Your task to perform on an android device: Set the phone to "Do not disturb". Image 0: 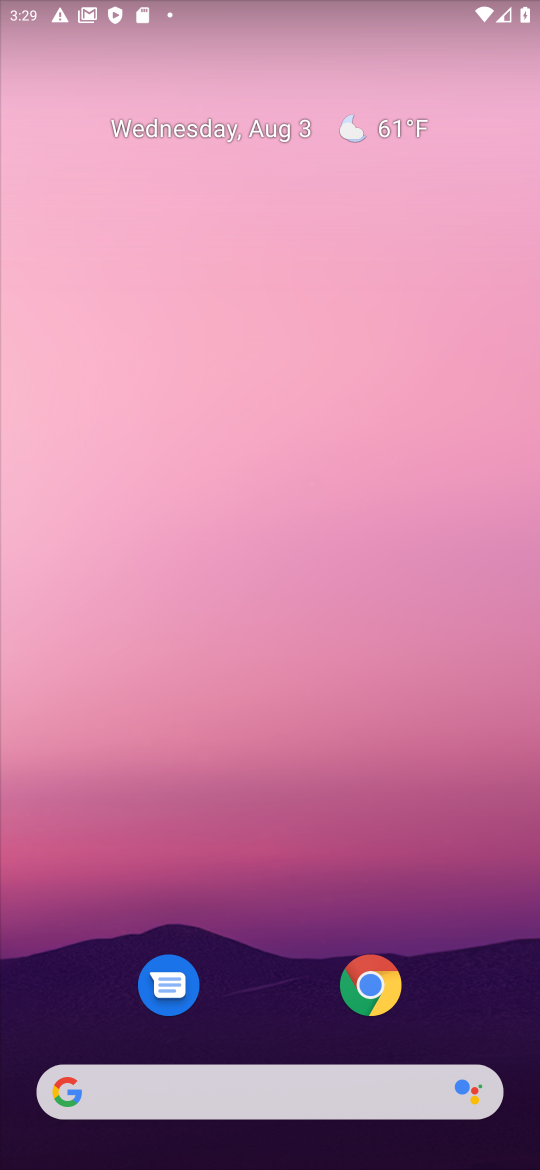
Step 0: drag from (250, 933) to (247, 97)
Your task to perform on an android device: Set the phone to "Do not disturb". Image 1: 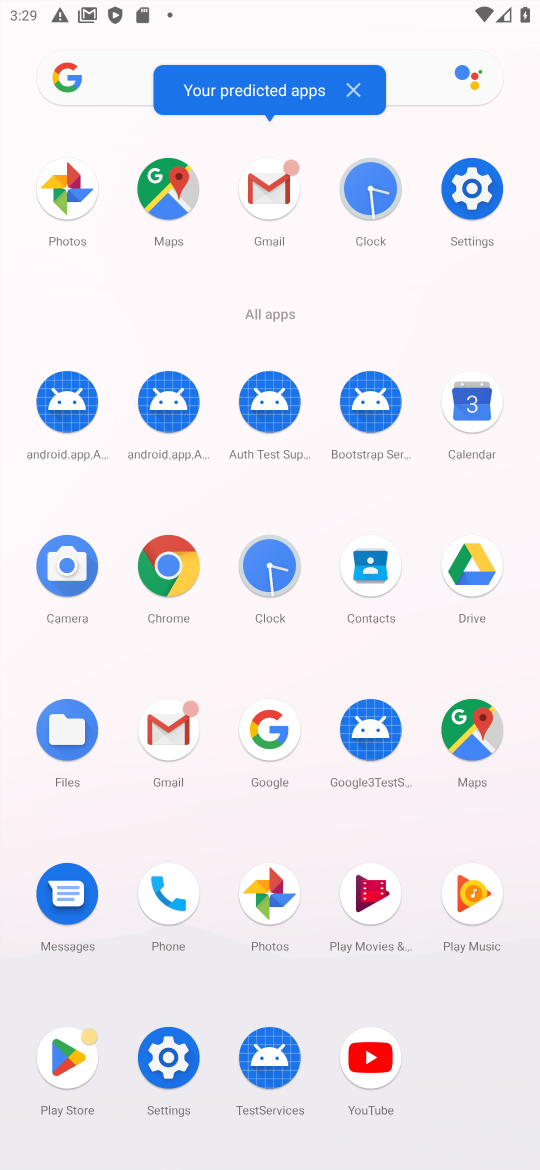
Step 1: click (473, 192)
Your task to perform on an android device: Set the phone to "Do not disturb". Image 2: 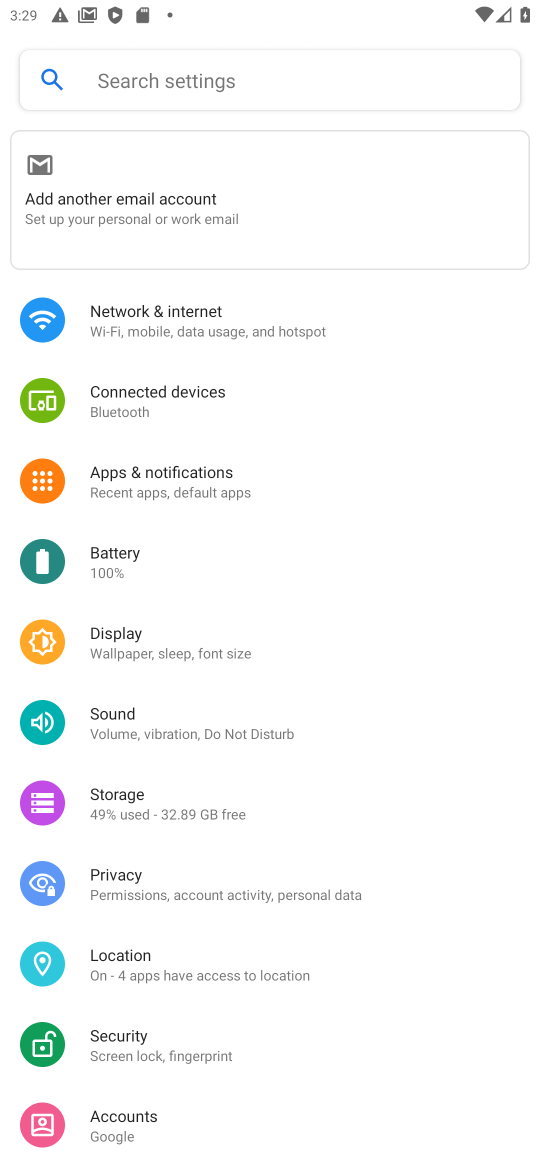
Step 2: click (197, 717)
Your task to perform on an android device: Set the phone to "Do not disturb". Image 3: 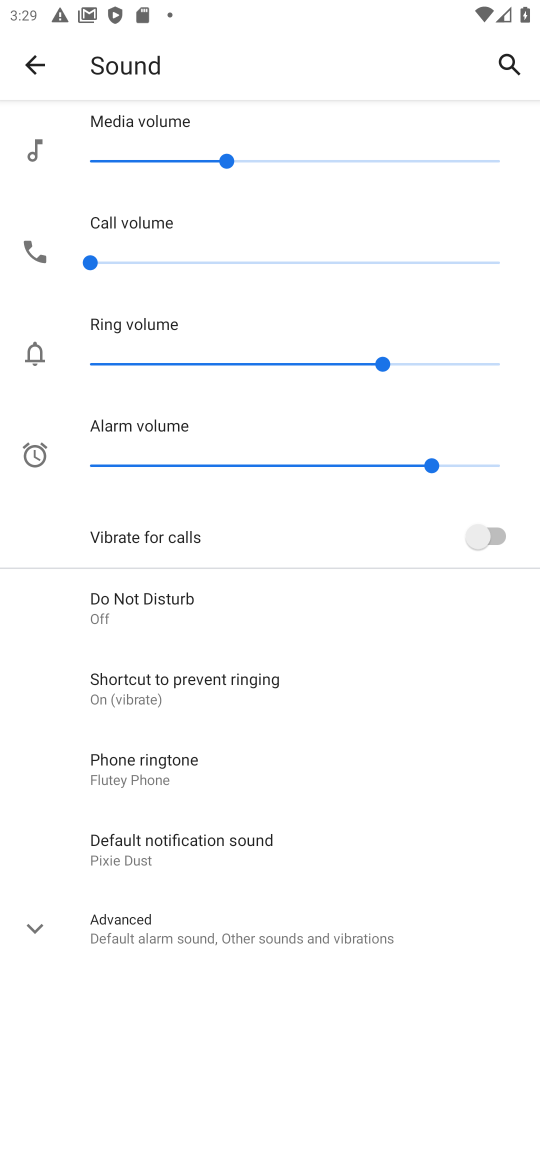
Step 3: click (173, 604)
Your task to perform on an android device: Set the phone to "Do not disturb". Image 4: 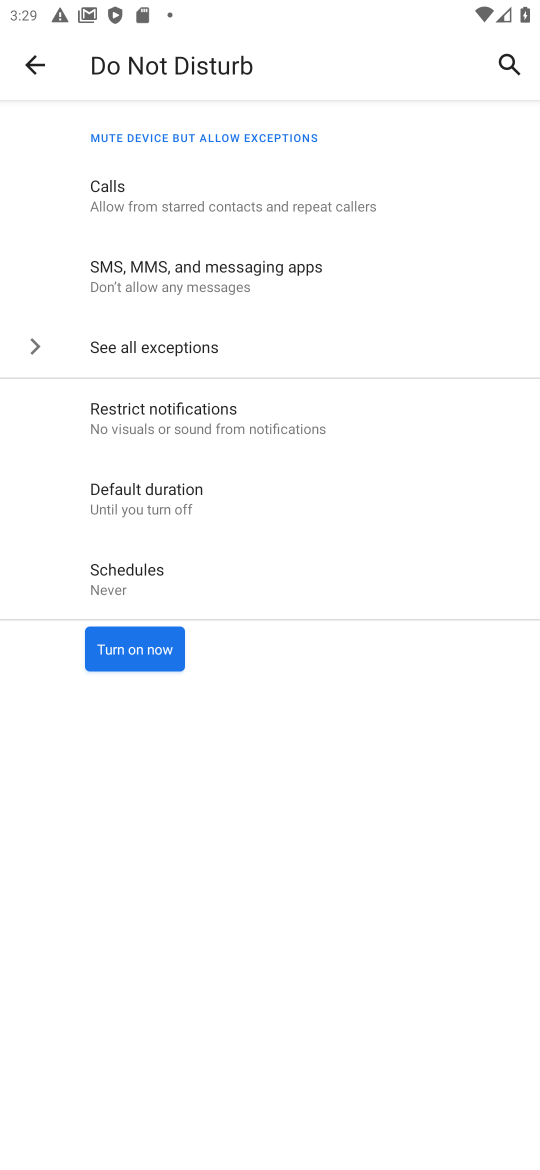
Step 4: click (136, 647)
Your task to perform on an android device: Set the phone to "Do not disturb". Image 5: 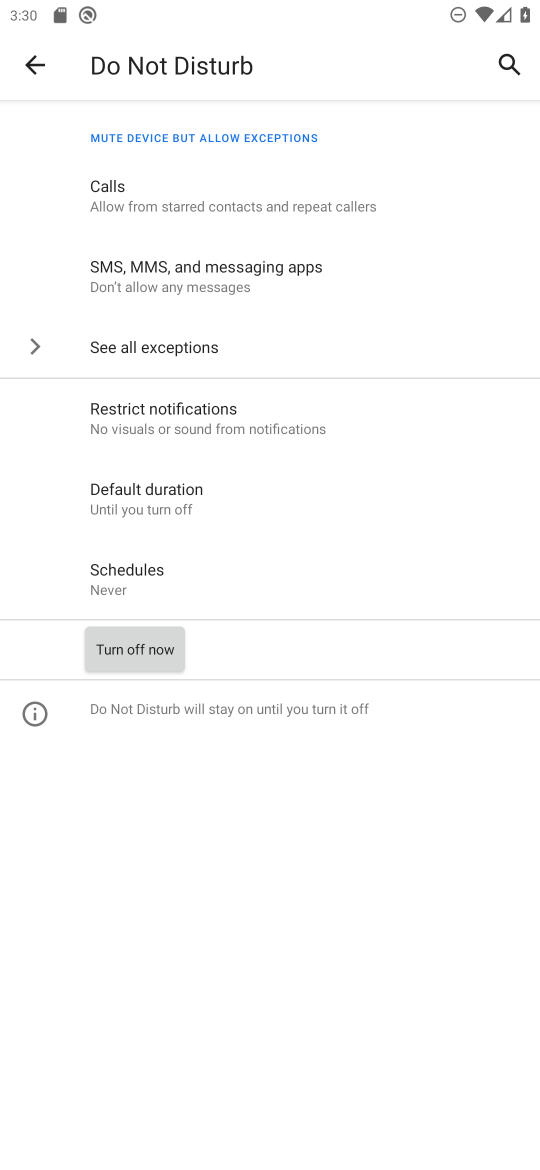
Step 5: task complete